Your task to perform on an android device: Open battery settings Image 0: 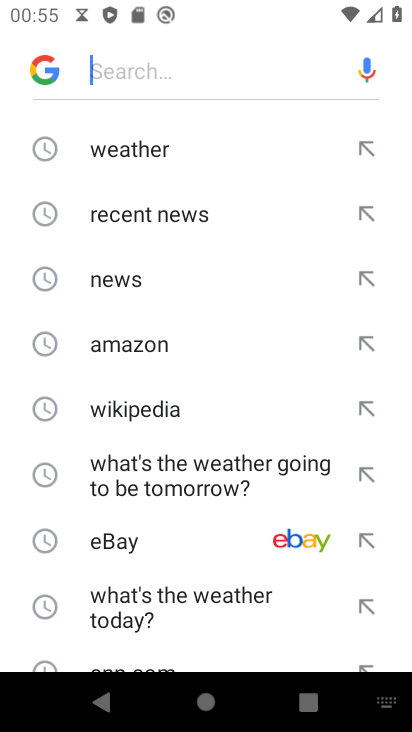
Step 0: press home button
Your task to perform on an android device: Open battery settings Image 1: 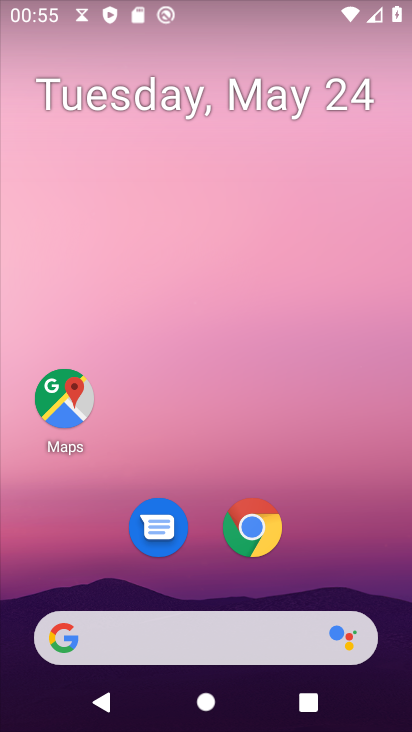
Step 1: drag from (193, 625) to (334, 108)
Your task to perform on an android device: Open battery settings Image 2: 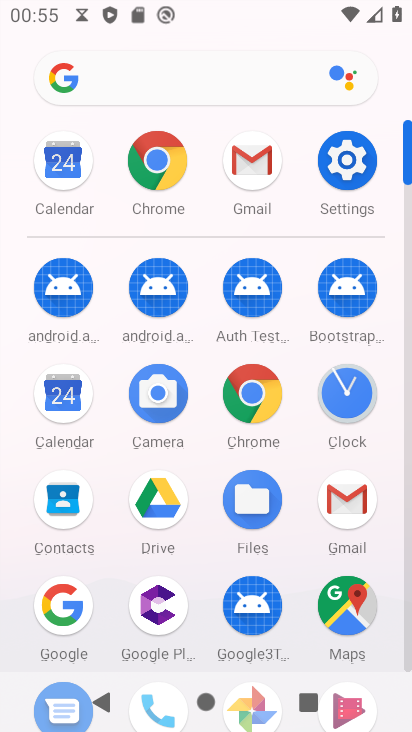
Step 2: click (342, 172)
Your task to perform on an android device: Open battery settings Image 3: 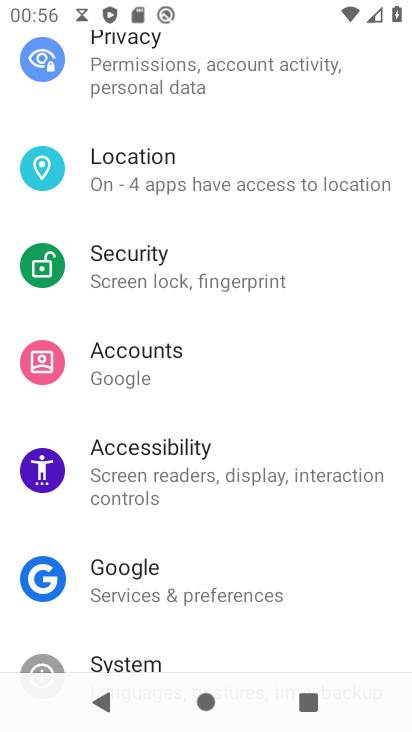
Step 3: drag from (315, 268) to (211, 612)
Your task to perform on an android device: Open battery settings Image 4: 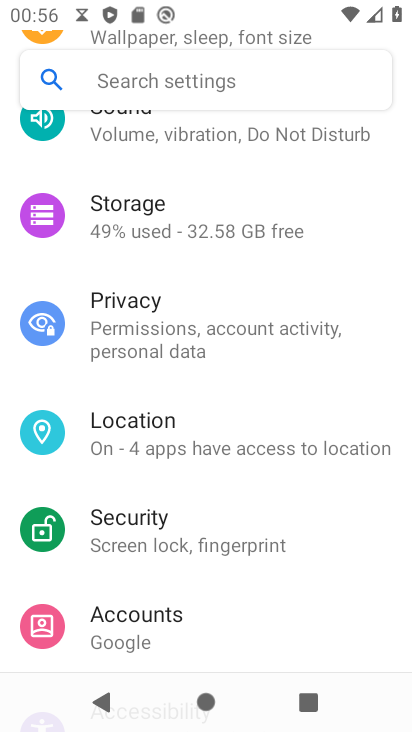
Step 4: drag from (310, 211) to (245, 576)
Your task to perform on an android device: Open battery settings Image 5: 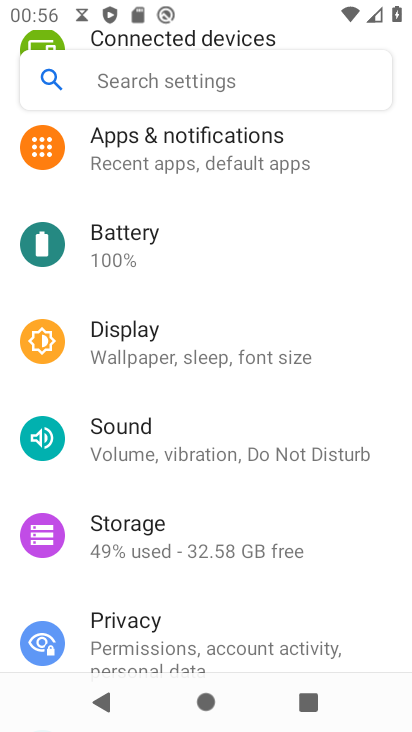
Step 5: click (141, 258)
Your task to perform on an android device: Open battery settings Image 6: 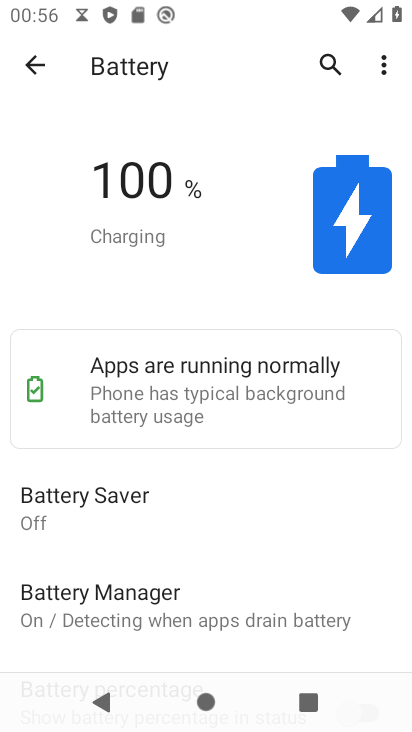
Step 6: task complete